Your task to perform on an android device: Go to Amazon Image 0: 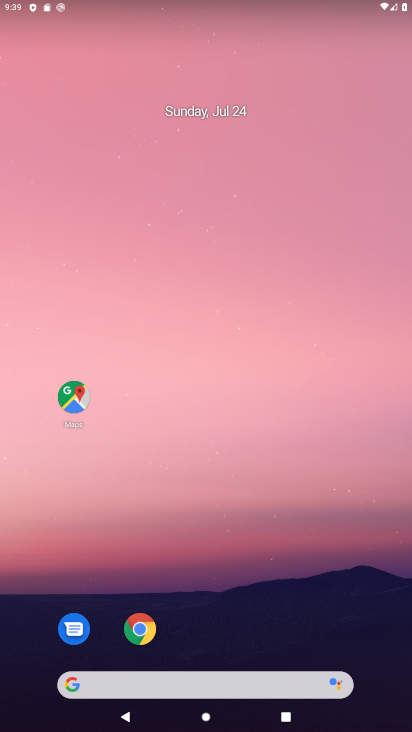
Step 0: click (142, 630)
Your task to perform on an android device: Go to Amazon Image 1: 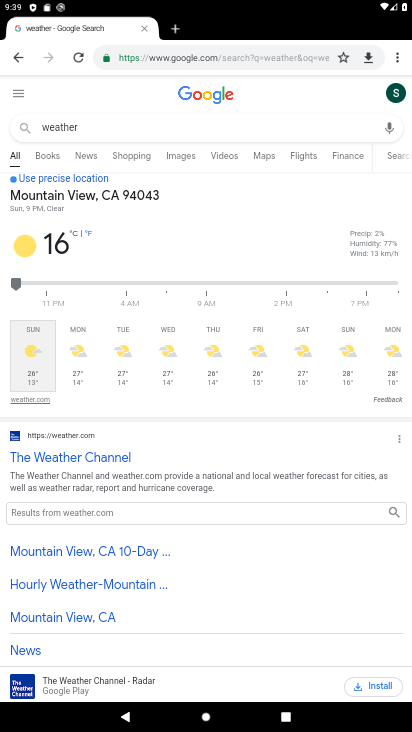
Step 1: click (178, 30)
Your task to perform on an android device: Go to Amazon Image 2: 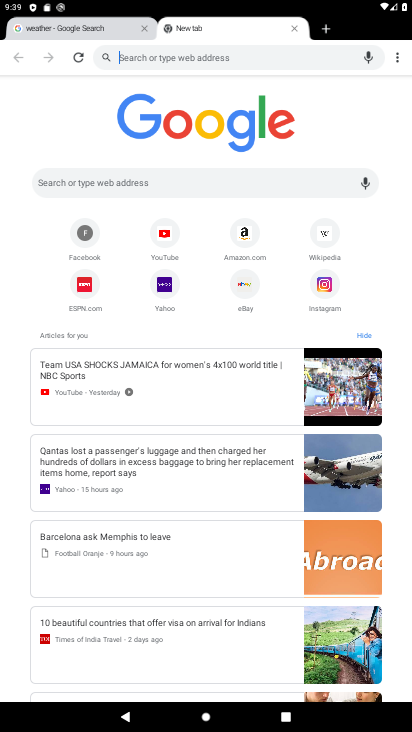
Step 2: type "Amazon"
Your task to perform on an android device: Go to Amazon Image 3: 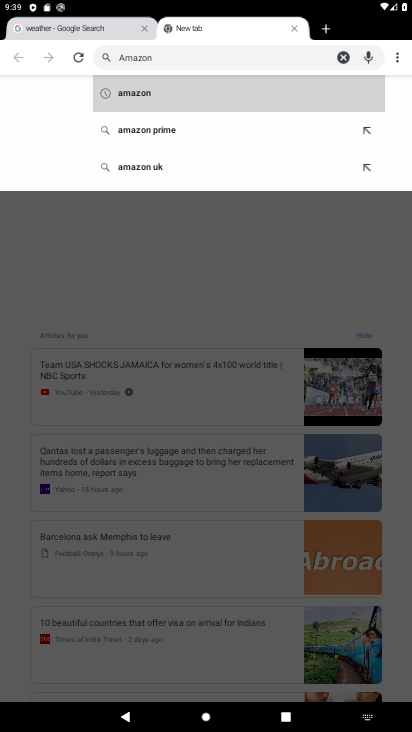
Step 3: click (159, 98)
Your task to perform on an android device: Go to Amazon Image 4: 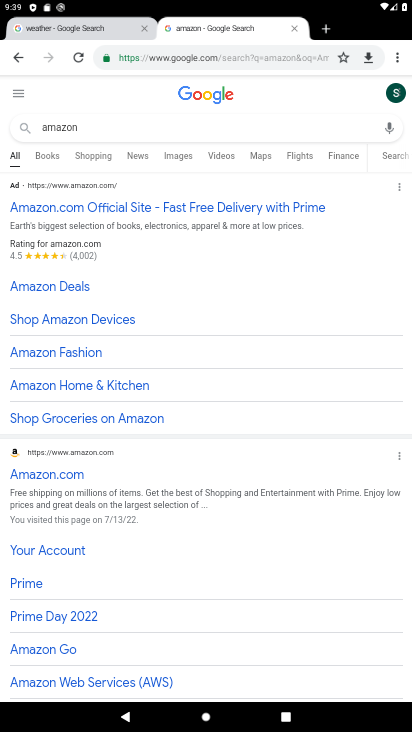
Step 4: click (55, 472)
Your task to perform on an android device: Go to Amazon Image 5: 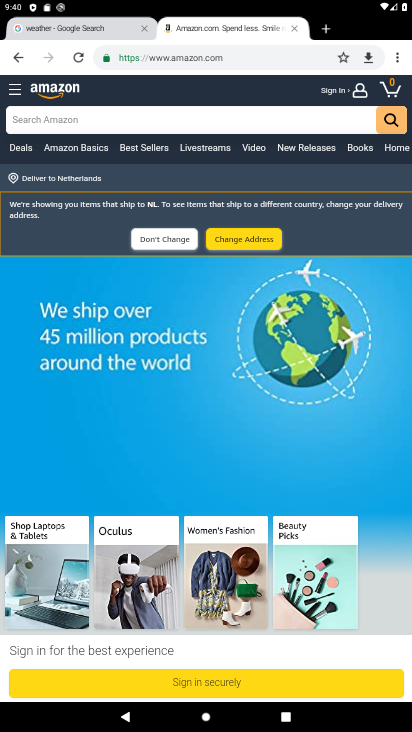
Step 5: task complete